Your task to perform on an android device: Clear all items from cart on amazon. Image 0: 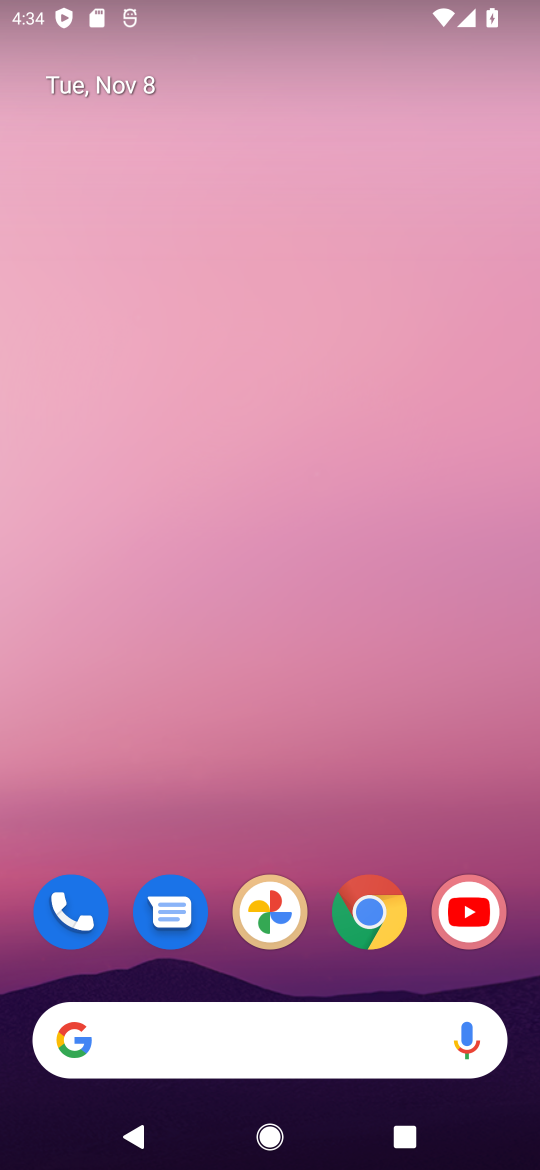
Step 0: click (352, 924)
Your task to perform on an android device: Clear all items from cart on amazon. Image 1: 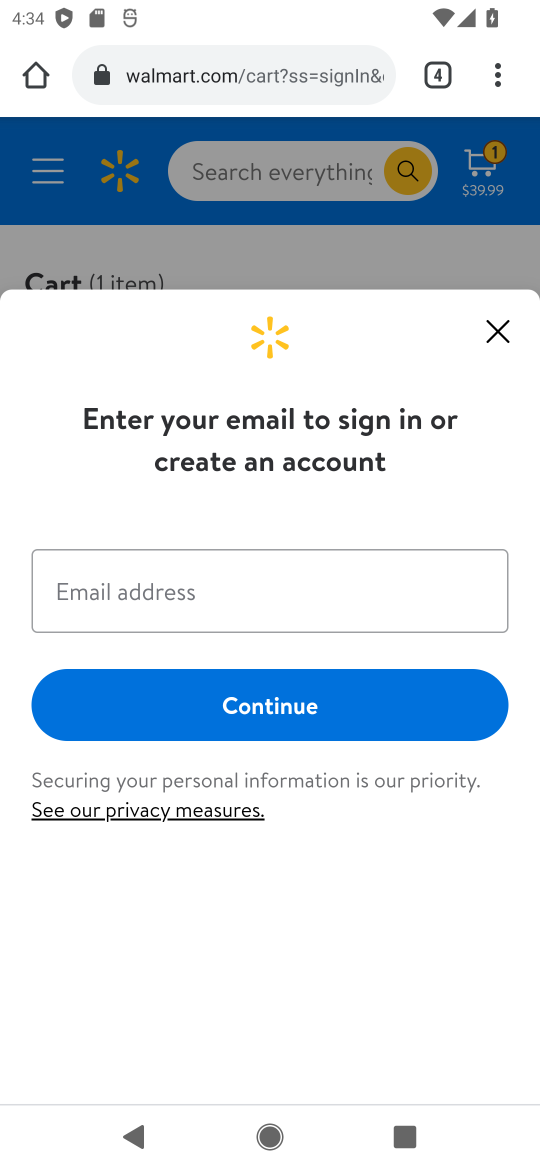
Step 1: click (444, 65)
Your task to perform on an android device: Clear all items from cart on amazon. Image 2: 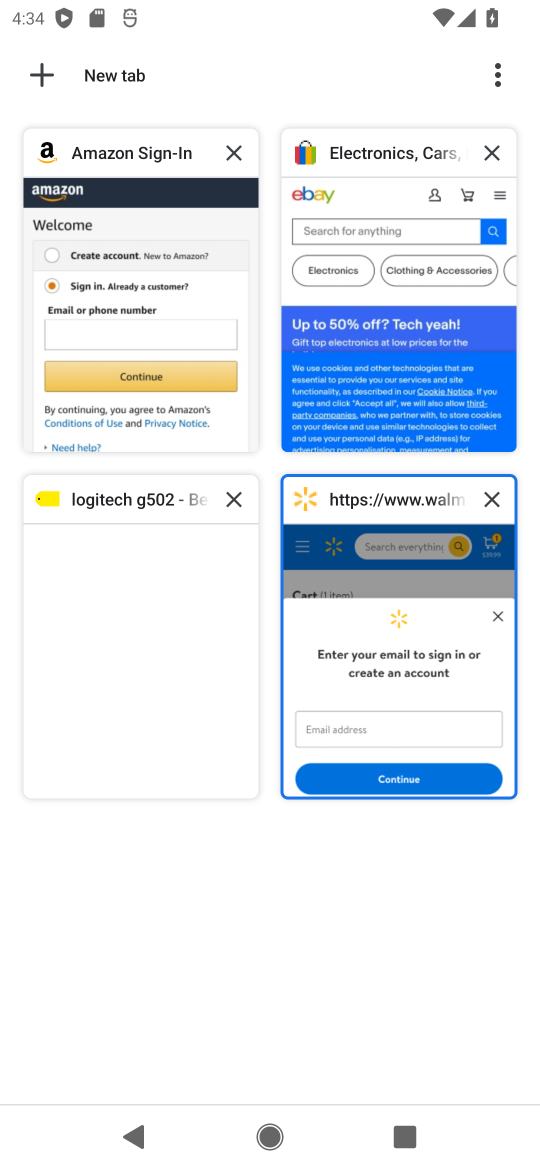
Step 2: click (140, 304)
Your task to perform on an android device: Clear all items from cart on amazon. Image 3: 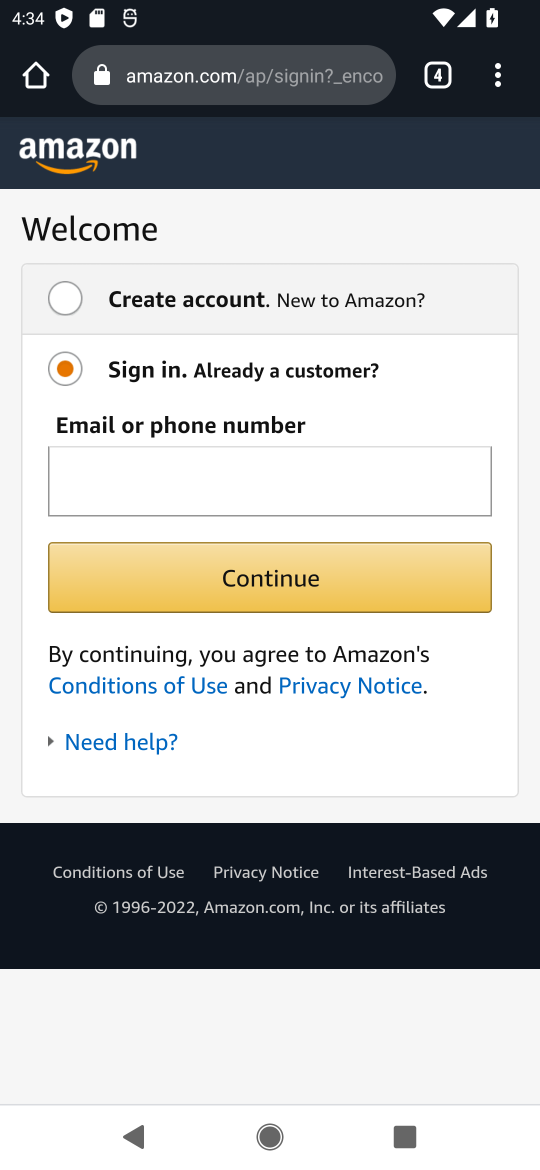
Step 3: press back button
Your task to perform on an android device: Clear all items from cart on amazon. Image 4: 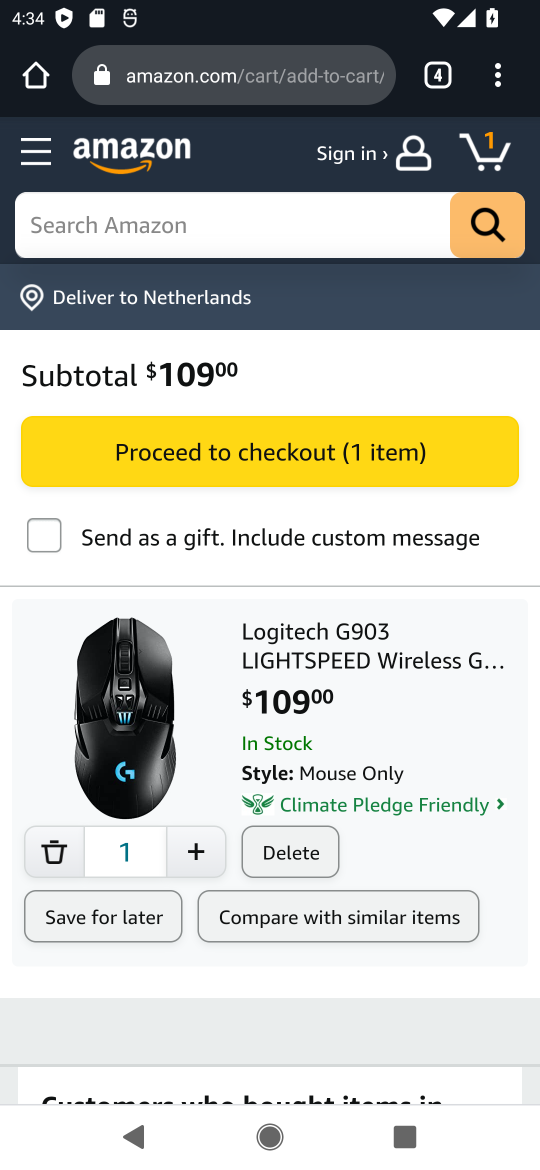
Step 4: click (292, 842)
Your task to perform on an android device: Clear all items from cart on amazon. Image 5: 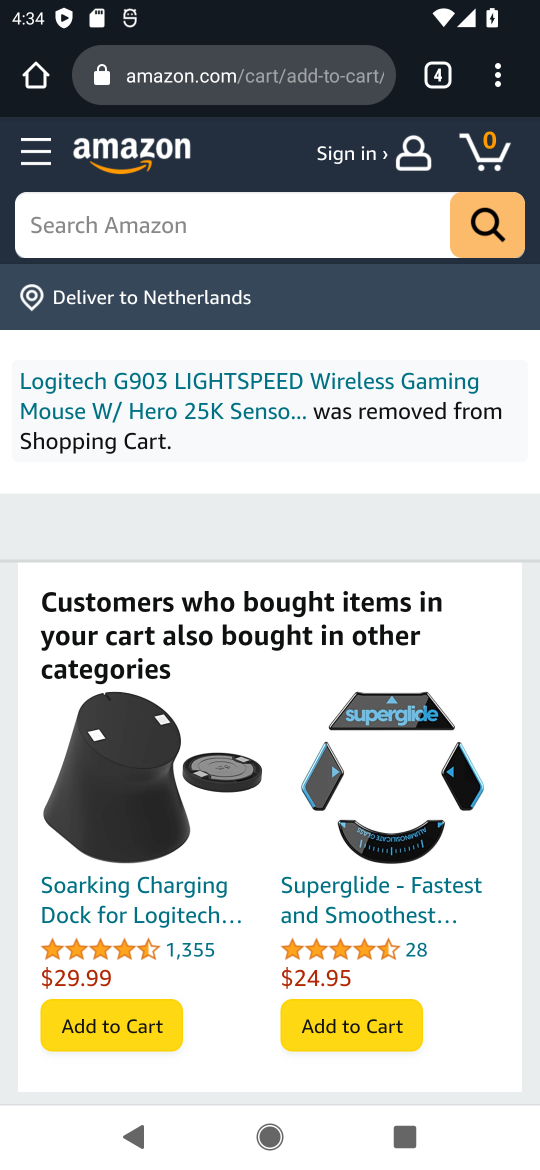
Step 5: task complete